Your task to perform on an android device: Go to network settings Image 0: 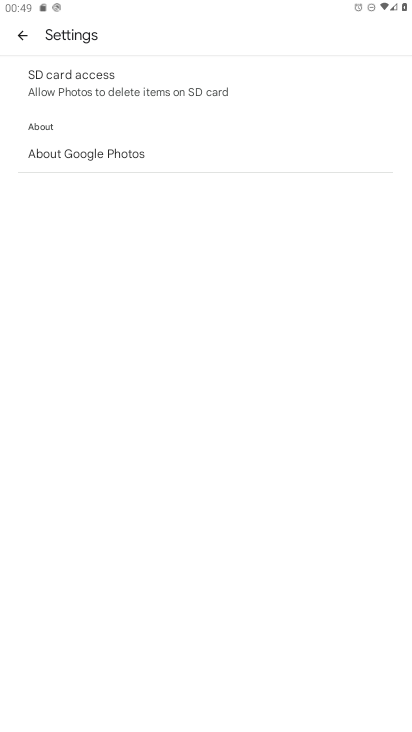
Step 0: press home button
Your task to perform on an android device: Go to network settings Image 1: 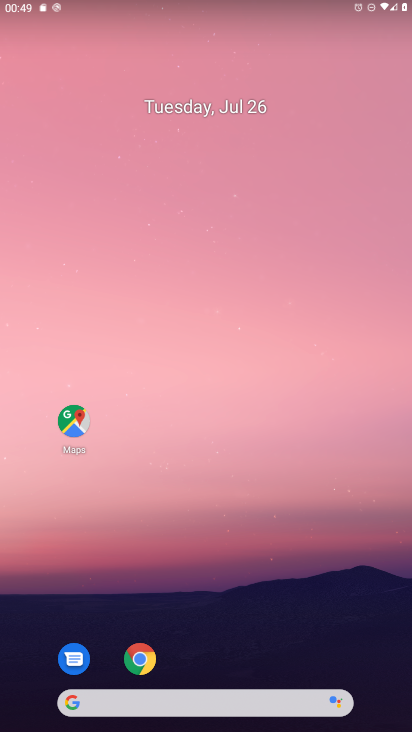
Step 1: drag from (284, 556) to (280, 61)
Your task to perform on an android device: Go to network settings Image 2: 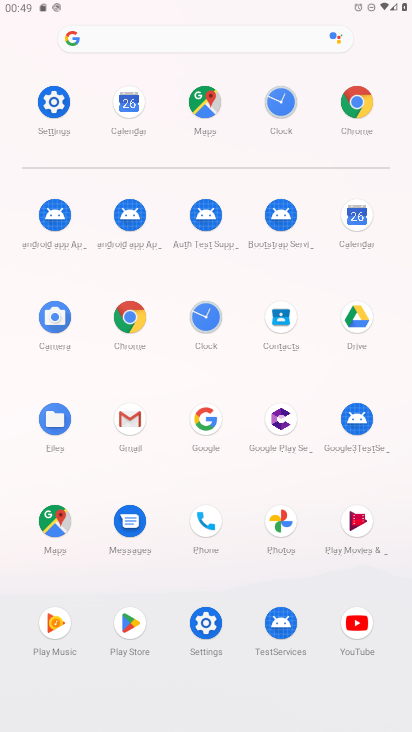
Step 2: click (208, 622)
Your task to perform on an android device: Go to network settings Image 3: 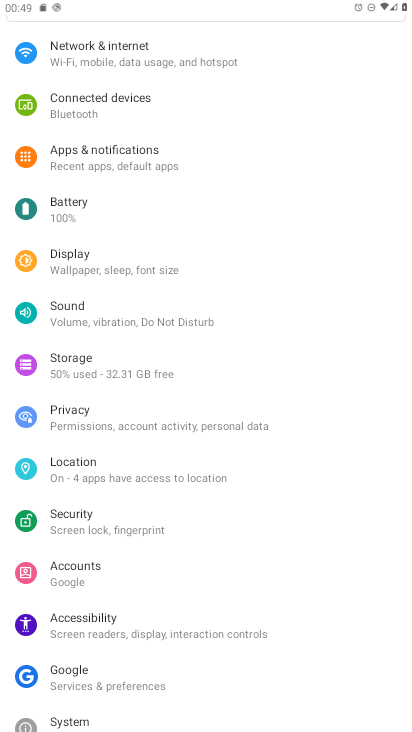
Step 3: click (110, 50)
Your task to perform on an android device: Go to network settings Image 4: 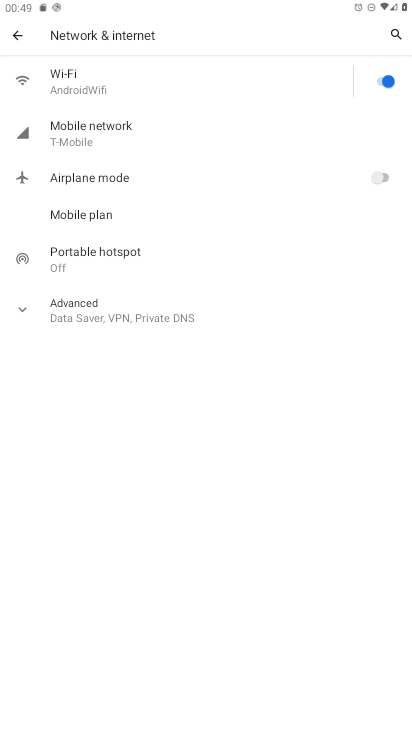
Step 4: task complete